Your task to perform on an android device: open sync settings in chrome Image 0: 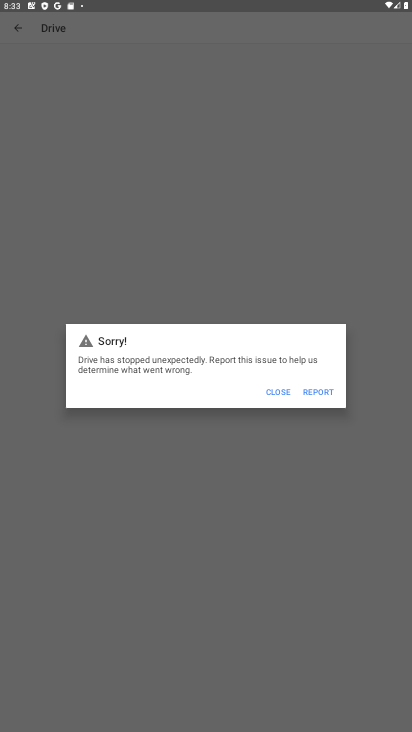
Step 0: click (264, 402)
Your task to perform on an android device: open sync settings in chrome Image 1: 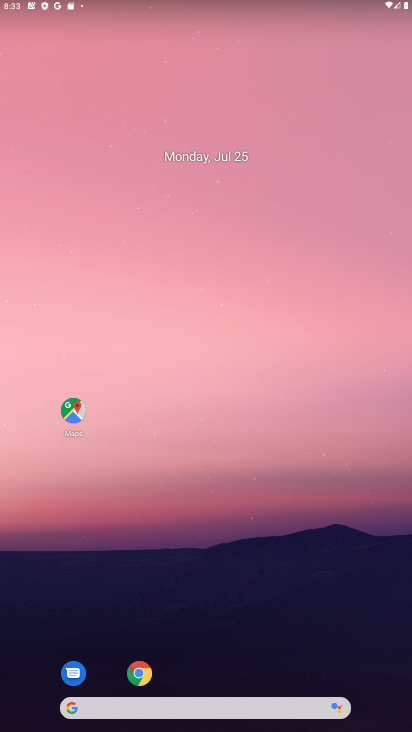
Step 1: click (143, 666)
Your task to perform on an android device: open sync settings in chrome Image 2: 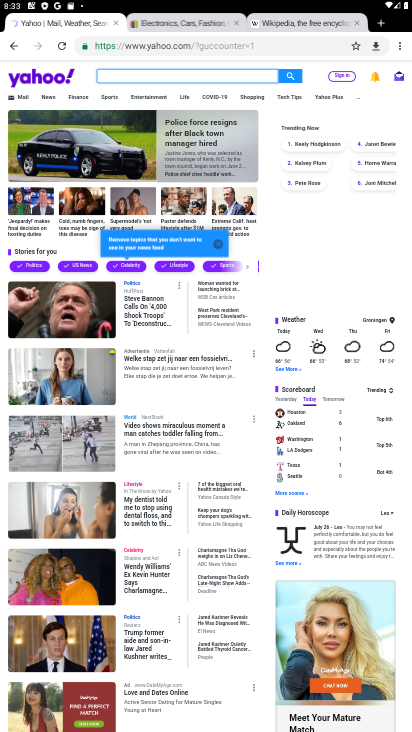
Step 2: click (402, 45)
Your task to perform on an android device: open sync settings in chrome Image 3: 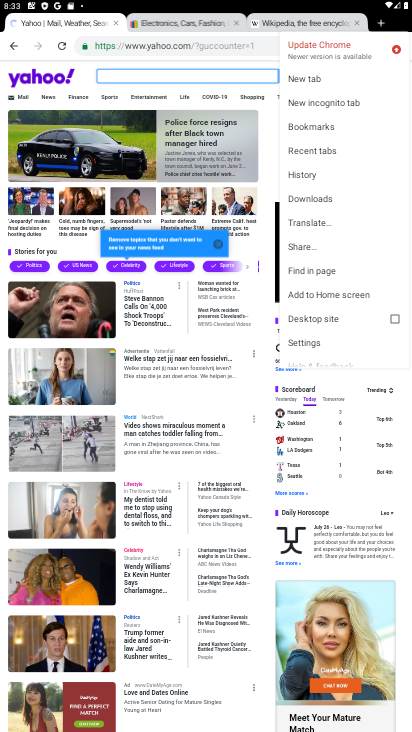
Step 3: click (317, 346)
Your task to perform on an android device: open sync settings in chrome Image 4: 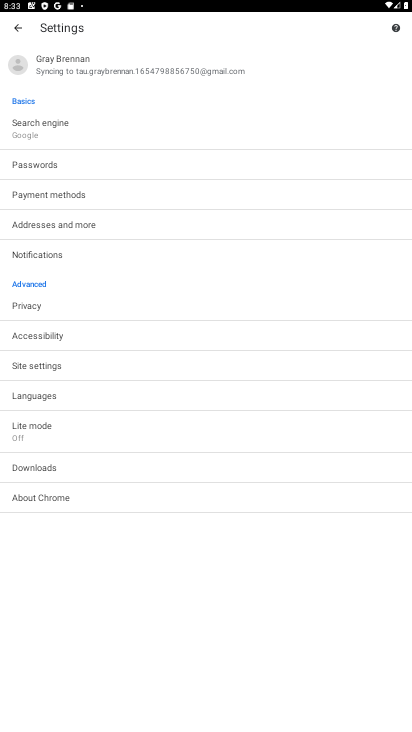
Step 4: task complete